Your task to perform on an android device: find which apps use the phone's location Image 0: 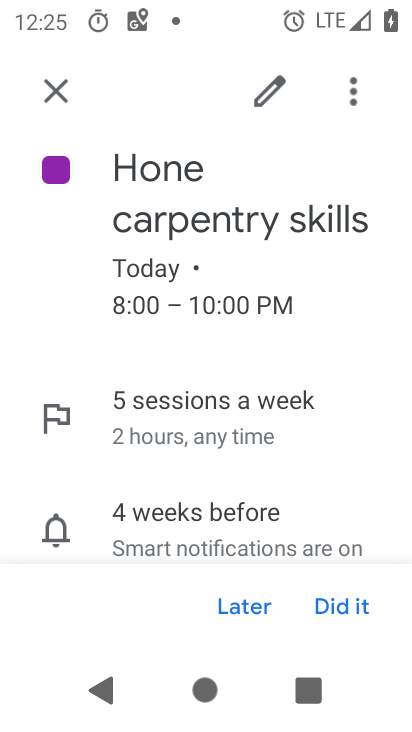
Step 0: press home button
Your task to perform on an android device: find which apps use the phone's location Image 1: 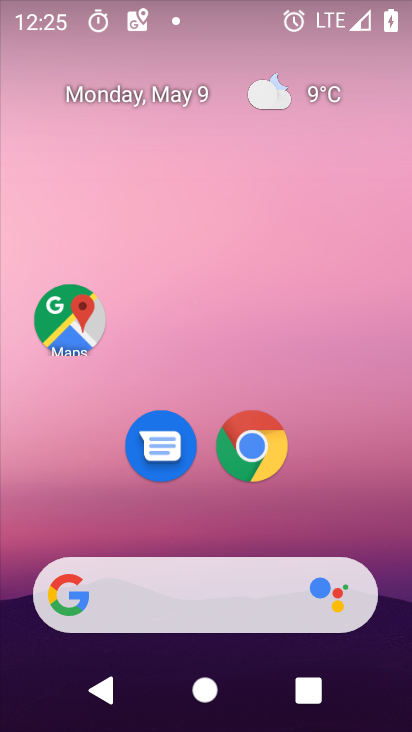
Step 1: drag from (383, 497) to (368, 7)
Your task to perform on an android device: find which apps use the phone's location Image 2: 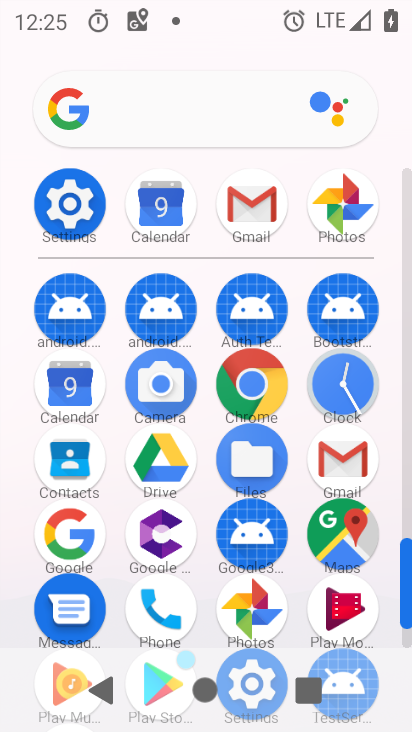
Step 2: click (64, 217)
Your task to perform on an android device: find which apps use the phone's location Image 3: 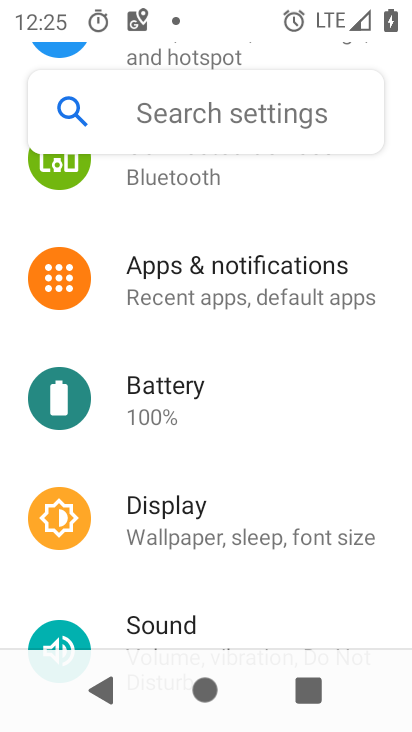
Step 3: drag from (280, 569) to (277, 219)
Your task to perform on an android device: find which apps use the phone's location Image 4: 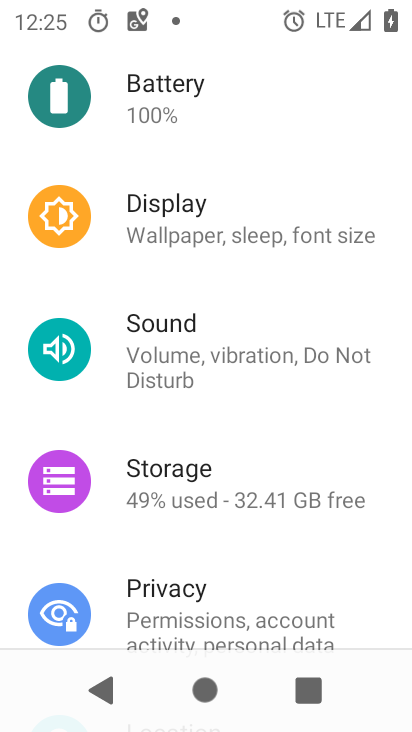
Step 4: drag from (240, 413) to (256, 189)
Your task to perform on an android device: find which apps use the phone's location Image 5: 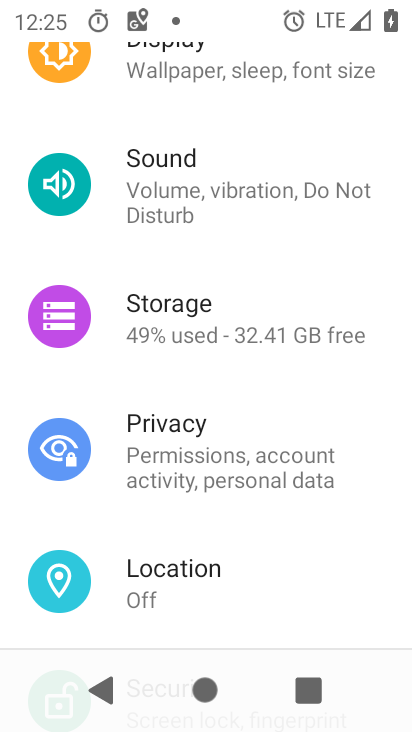
Step 5: click (163, 580)
Your task to perform on an android device: find which apps use the phone's location Image 6: 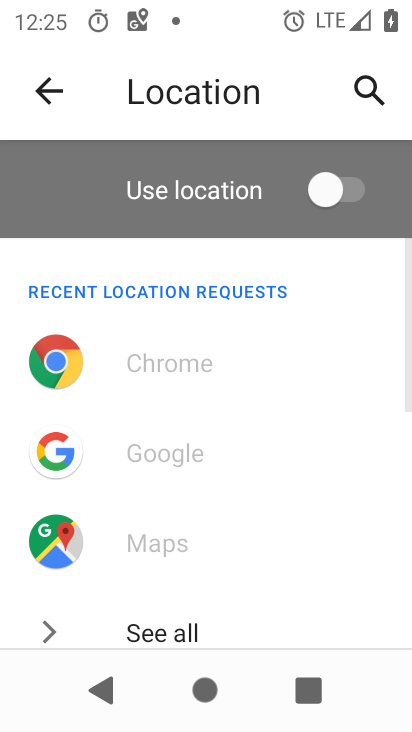
Step 6: drag from (248, 303) to (239, 213)
Your task to perform on an android device: find which apps use the phone's location Image 7: 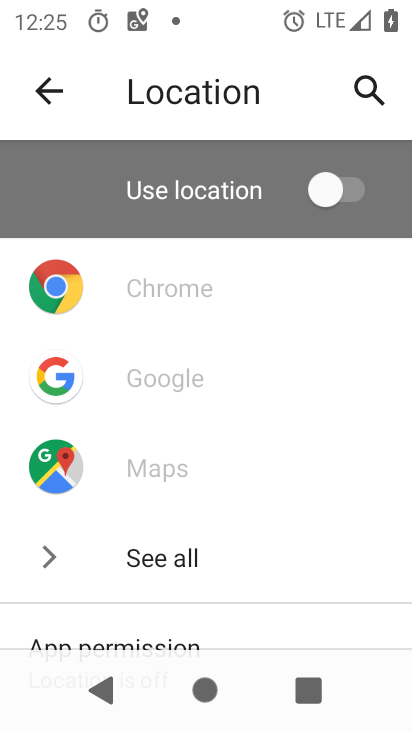
Step 7: drag from (295, 562) to (282, 318)
Your task to perform on an android device: find which apps use the phone's location Image 8: 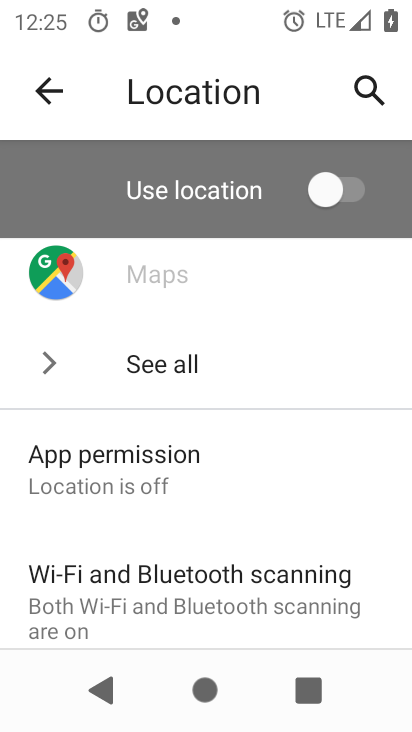
Step 8: click (148, 485)
Your task to perform on an android device: find which apps use the phone's location Image 9: 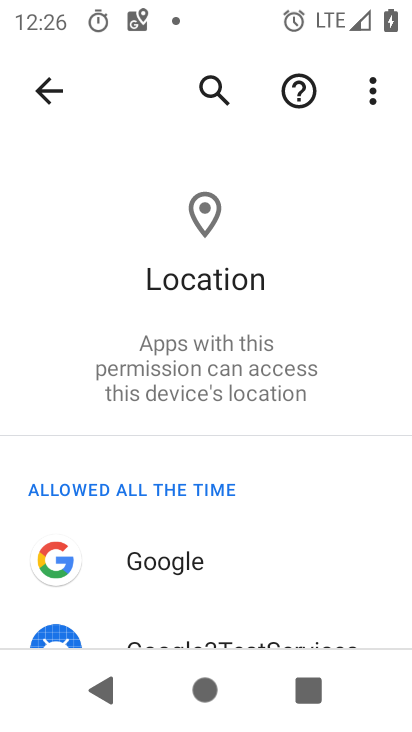
Step 9: task complete